Your task to perform on an android device: turn off priority inbox in the gmail app Image 0: 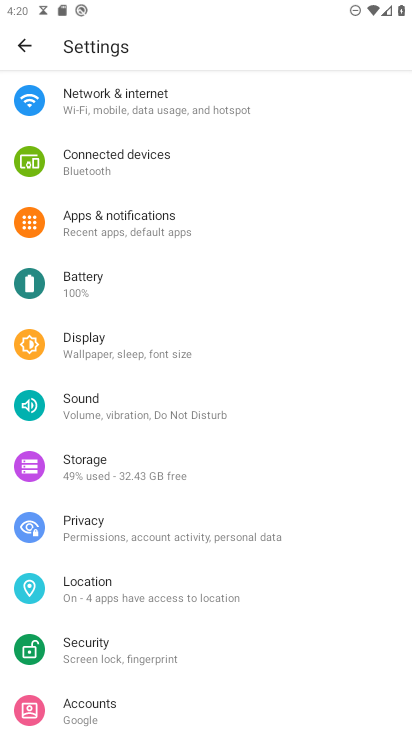
Step 0: press home button
Your task to perform on an android device: turn off priority inbox in the gmail app Image 1: 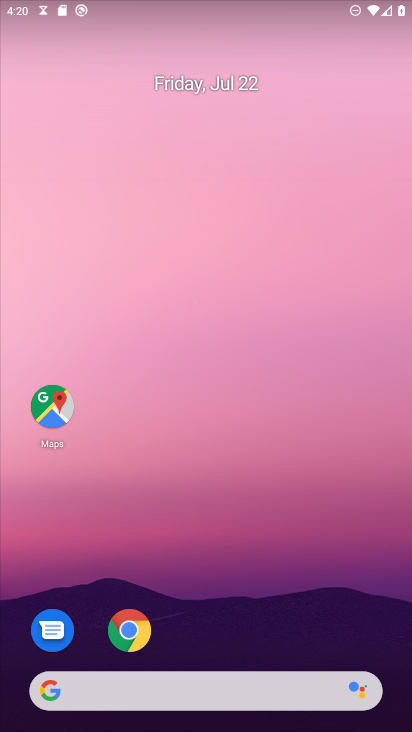
Step 1: drag from (254, 628) to (321, 8)
Your task to perform on an android device: turn off priority inbox in the gmail app Image 2: 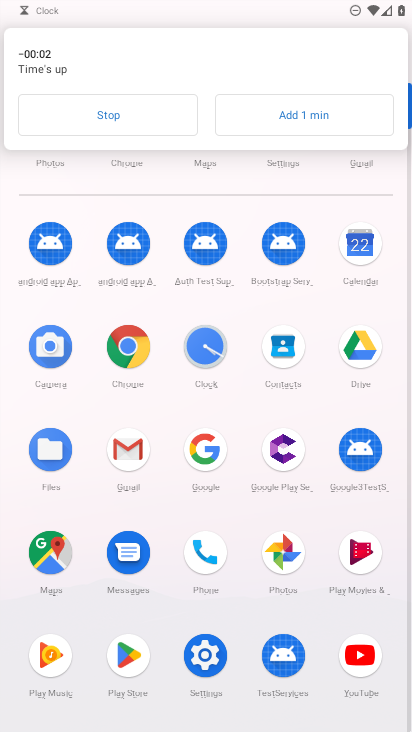
Step 2: click (128, 462)
Your task to perform on an android device: turn off priority inbox in the gmail app Image 3: 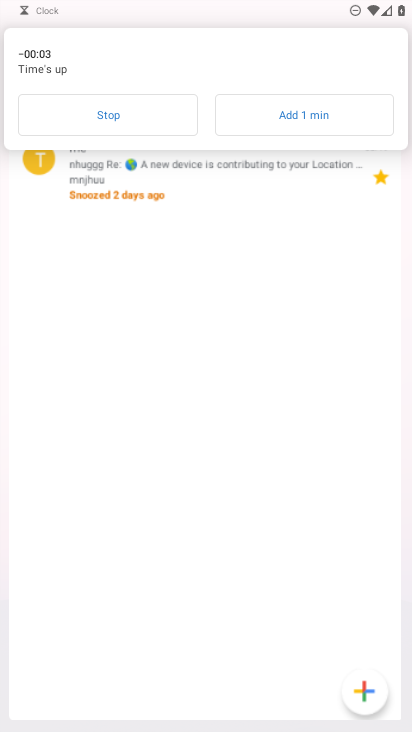
Step 3: click (162, 119)
Your task to perform on an android device: turn off priority inbox in the gmail app Image 4: 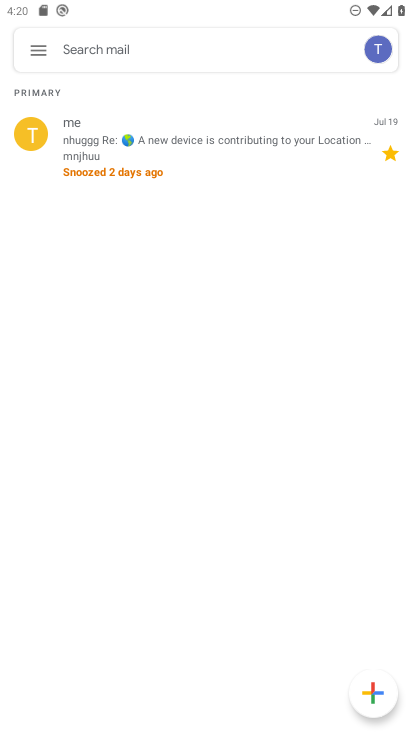
Step 4: click (35, 46)
Your task to perform on an android device: turn off priority inbox in the gmail app Image 5: 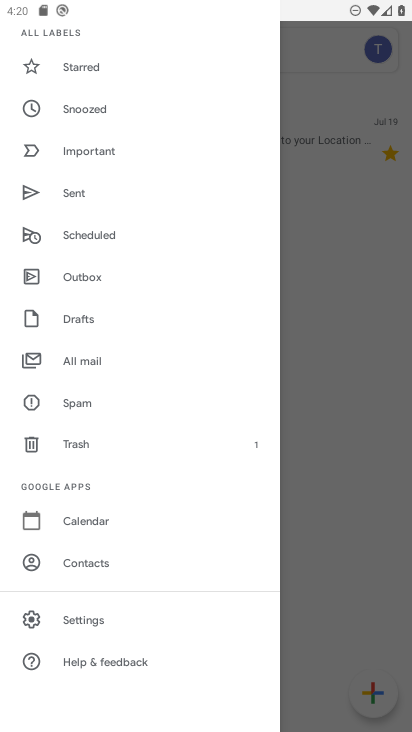
Step 5: click (100, 619)
Your task to perform on an android device: turn off priority inbox in the gmail app Image 6: 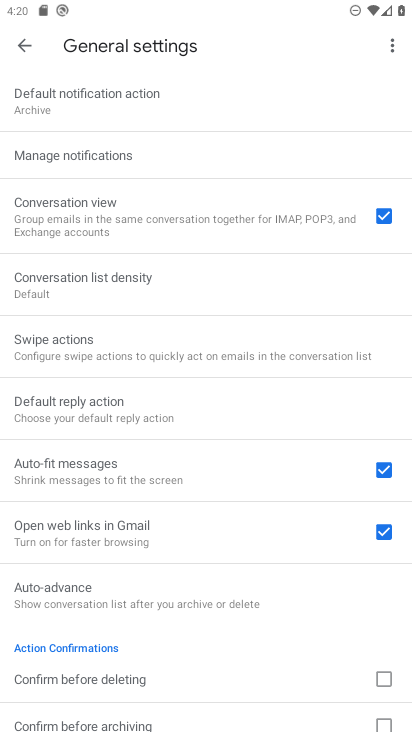
Step 6: click (24, 44)
Your task to perform on an android device: turn off priority inbox in the gmail app Image 7: 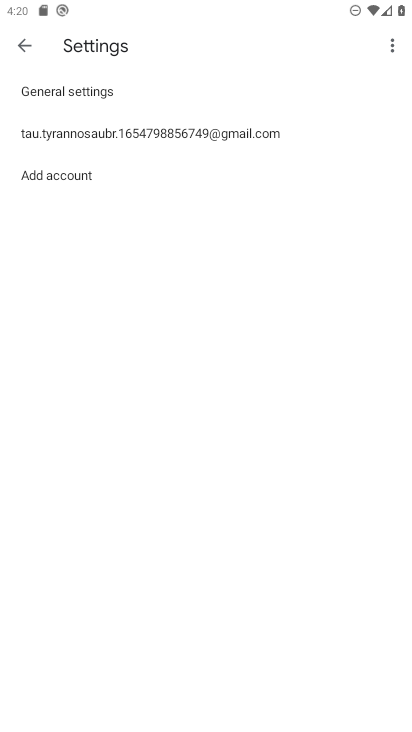
Step 7: click (139, 137)
Your task to perform on an android device: turn off priority inbox in the gmail app Image 8: 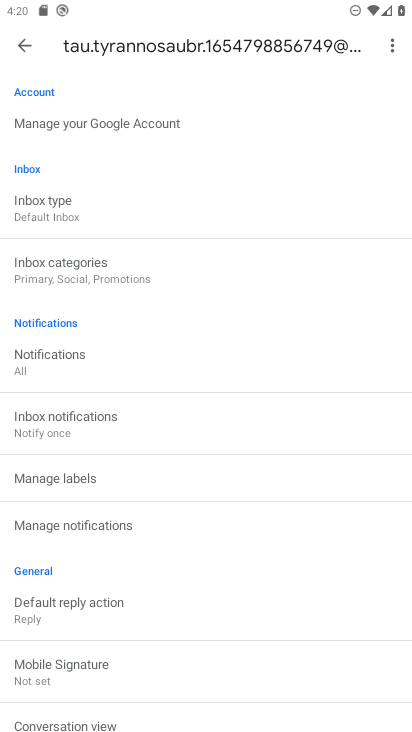
Step 8: click (75, 208)
Your task to perform on an android device: turn off priority inbox in the gmail app Image 9: 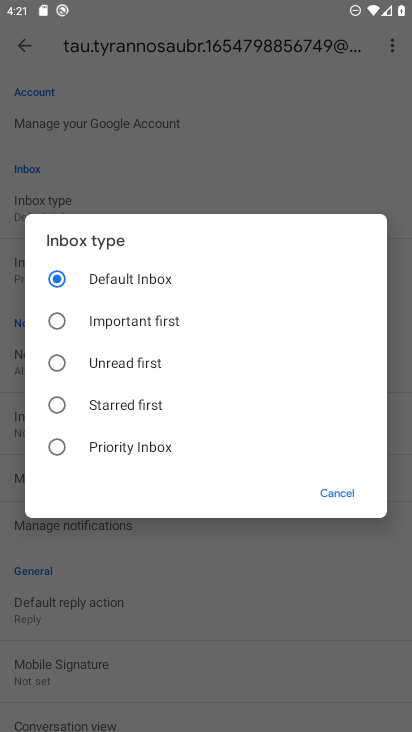
Step 9: click (96, 318)
Your task to perform on an android device: turn off priority inbox in the gmail app Image 10: 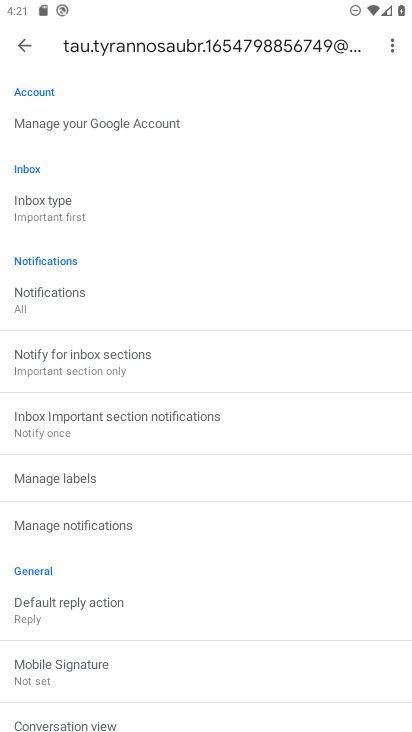
Step 10: task complete